Your task to perform on an android device: Open the calendar and show me this week's events Image 0: 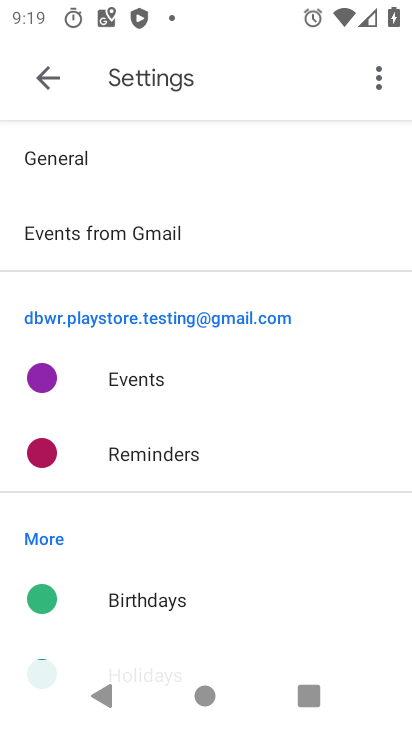
Step 0: click (48, 64)
Your task to perform on an android device: Open the calendar and show me this week's events Image 1: 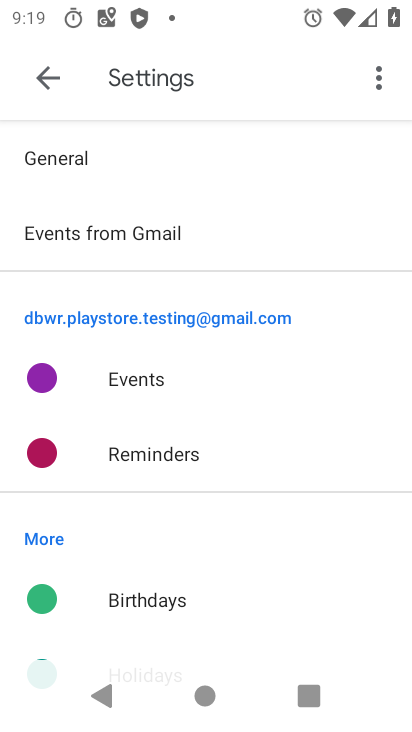
Step 1: click (47, 73)
Your task to perform on an android device: Open the calendar and show me this week's events Image 2: 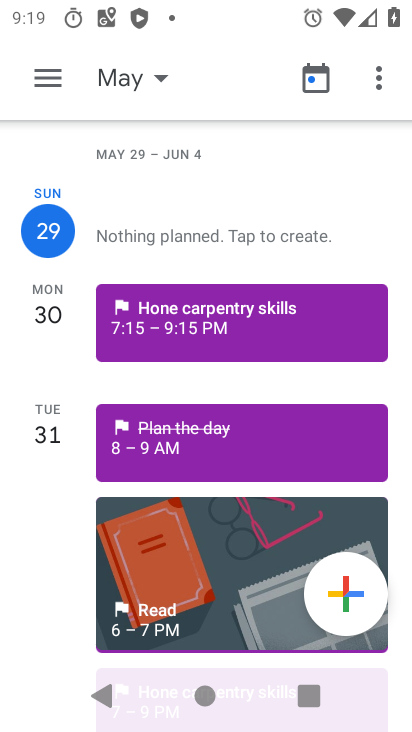
Step 2: click (156, 83)
Your task to perform on an android device: Open the calendar and show me this week's events Image 3: 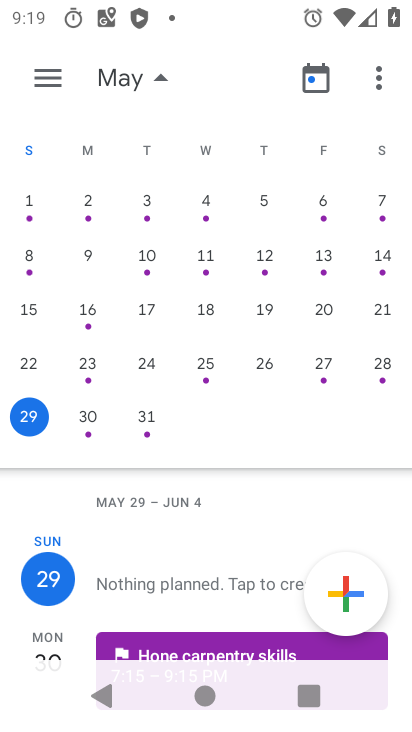
Step 3: click (40, 412)
Your task to perform on an android device: Open the calendar and show me this week's events Image 4: 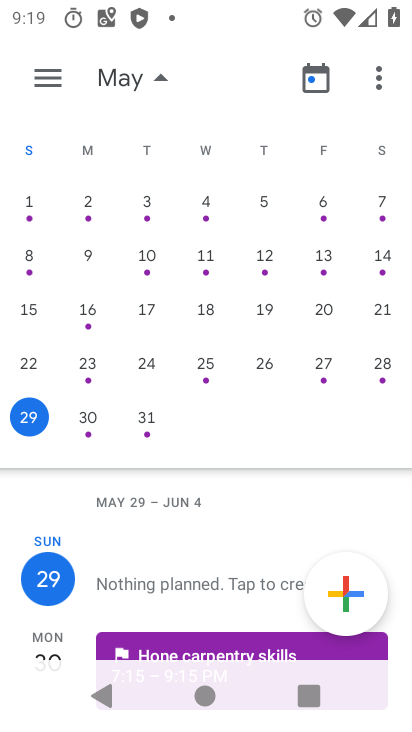
Step 4: task complete